Your task to perform on an android device: create a new album in the google photos Image 0: 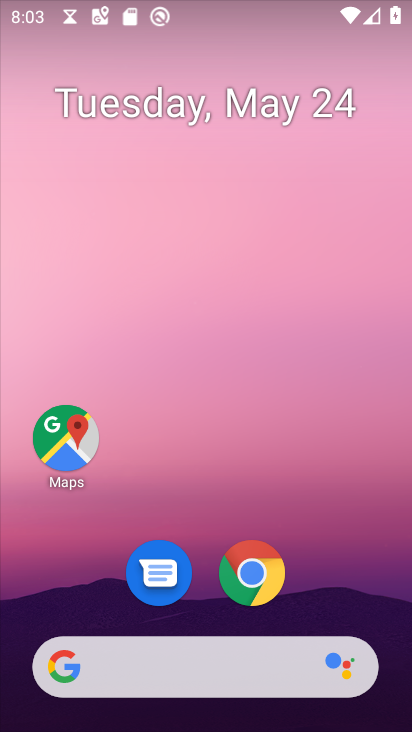
Step 0: drag from (339, 586) to (358, 43)
Your task to perform on an android device: create a new album in the google photos Image 1: 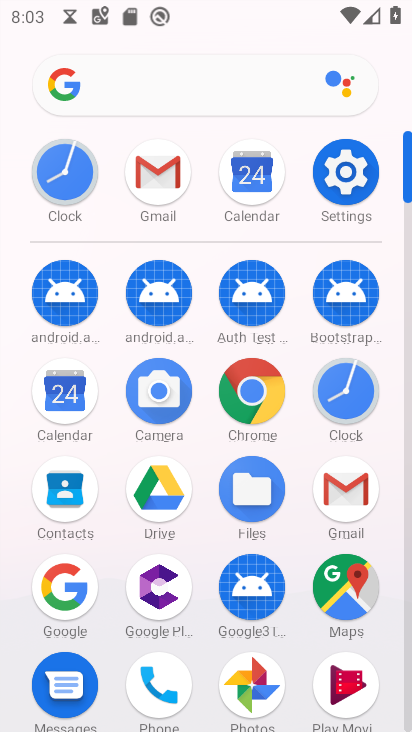
Step 1: click (261, 683)
Your task to perform on an android device: create a new album in the google photos Image 2: 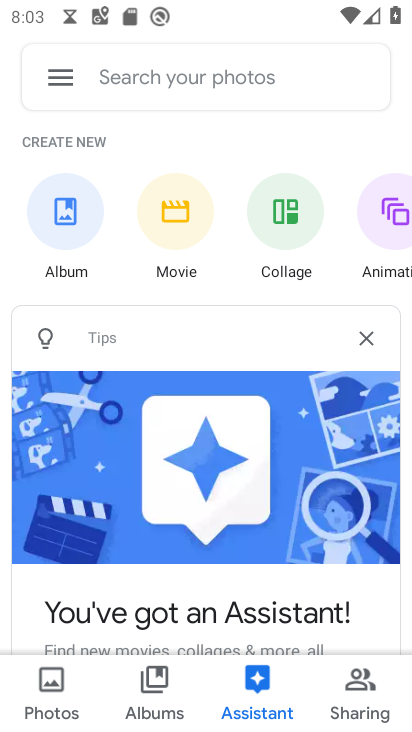
Step 2: click (159, 689)
Your task to perform on an android device: create a new album in the google photos Image 3: 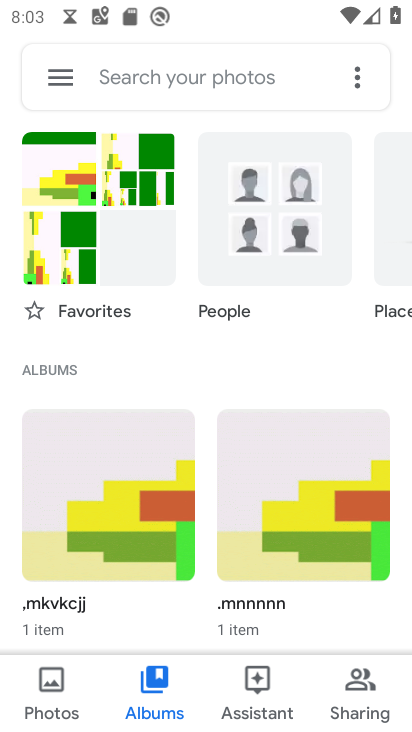
Step 3: task complete